Your task to perform on an android device: Go to Yahoo.com Image 0: 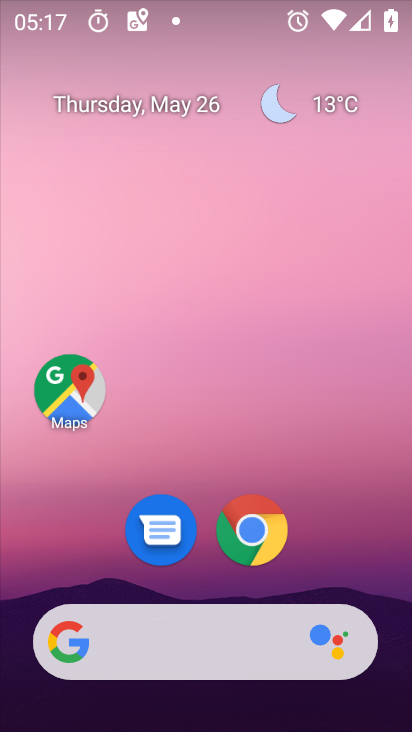
Step 0: drag from (249, 630) to (252, 33)
Your task to perform on an android device: Go to Yahoo.com Image 1: 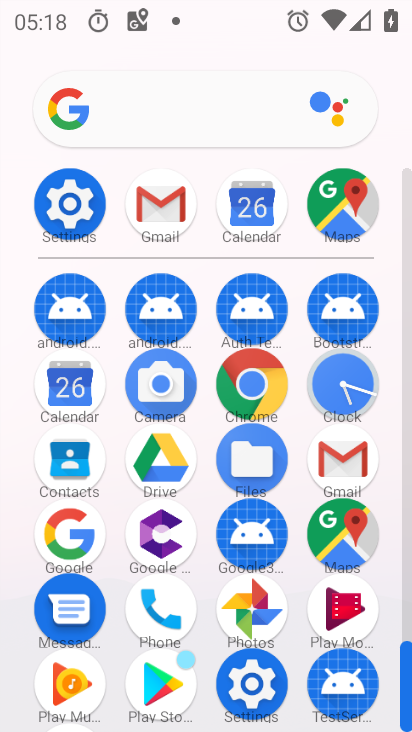
Step 1: click (243, 368)
Your task to perform on an android device: Go to Yahoo.com Image 2: 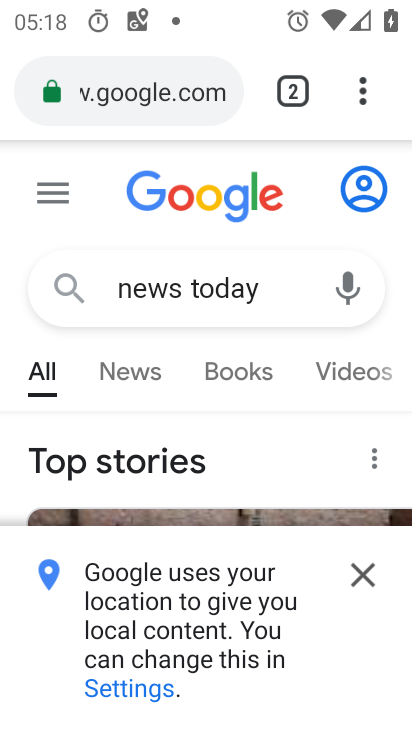
Step 2: click (193, 85)
Your task to perform on an android device: Go to Yahoo.com Image 3: 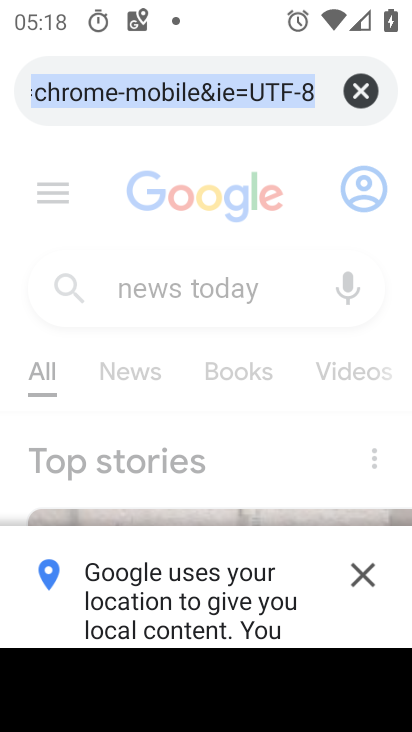
Step 3: click (359, 95)
Your task to perform on an android device: Go to Yahoo.com Image 4: 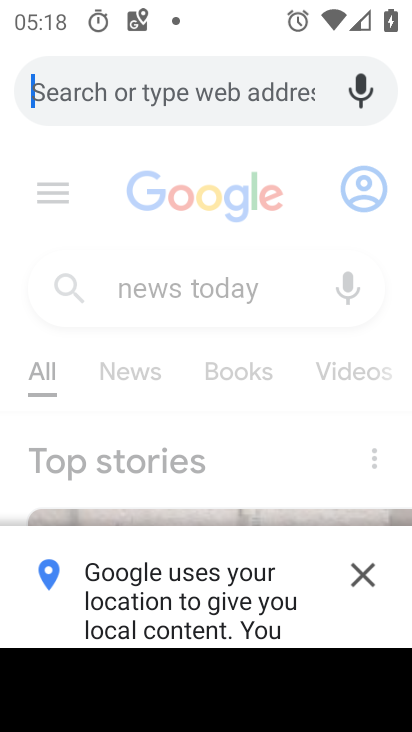
Step 4: type "yahoo.com"
Your task to perform on an android device: Go to Yahoo.com Image 5: 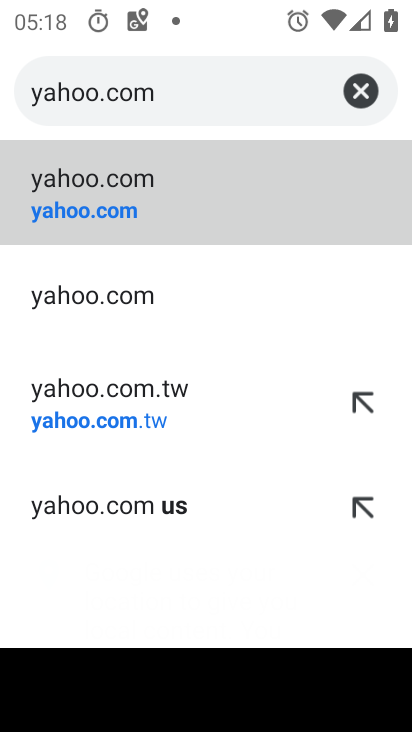
Step 5: click (227, 197)
Your task to perform on an android device: Go to Yahoo.com Image 6: 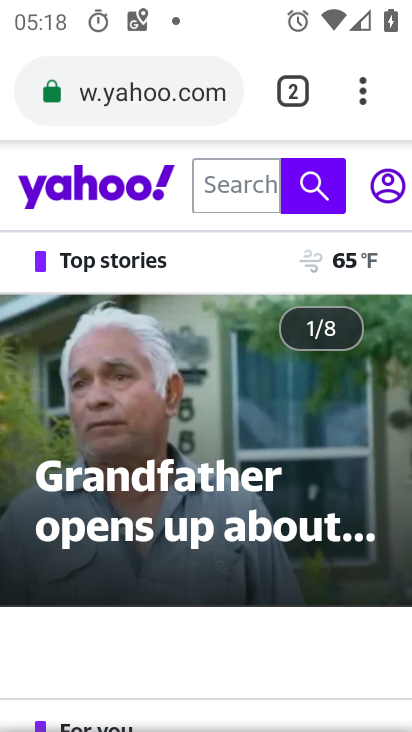
Step 6: task complete